Your task to perform on an android device: open app "Walmart Shopping & Grocery" (install if not already installed) Image 0: 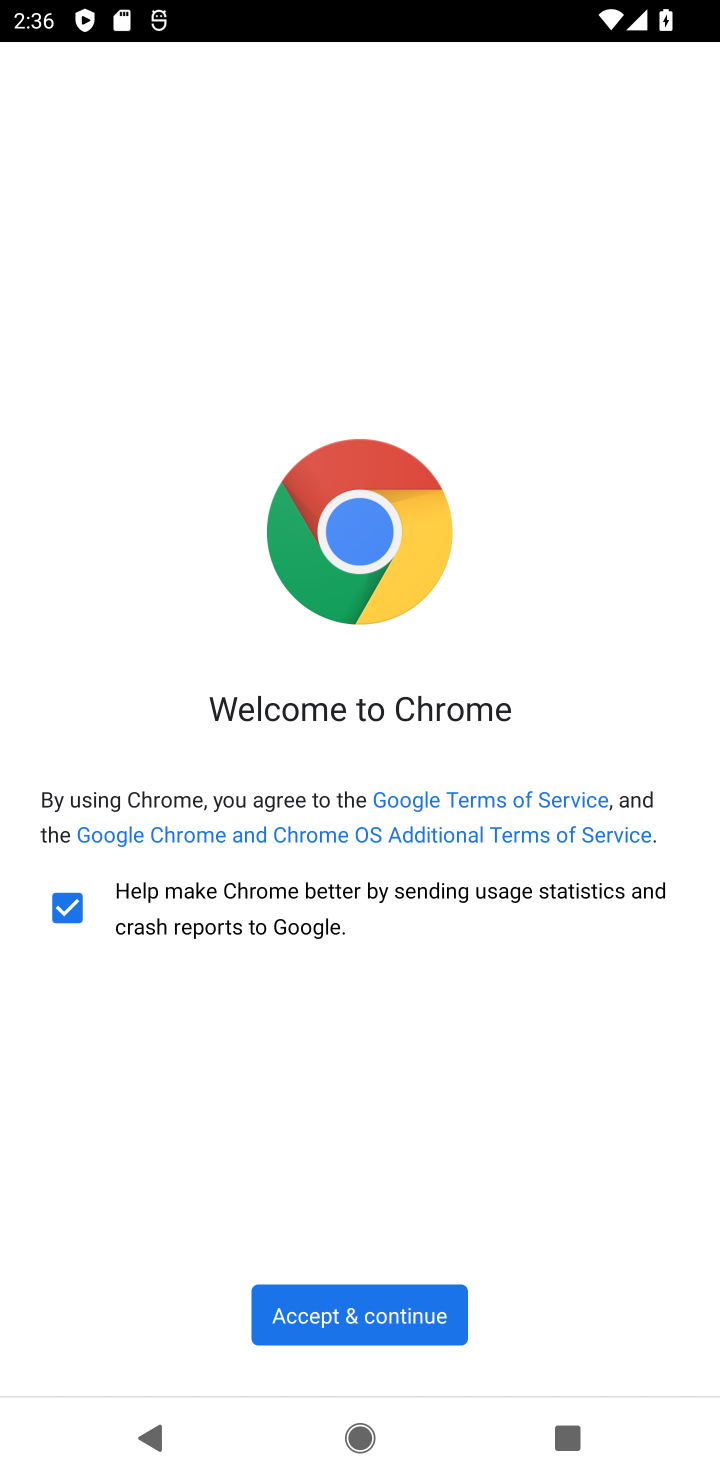
Step 0: press home button
Your task to perform on an android device: open app "Walmart Shopping & Grocery" (install if not already installed) Image 1: 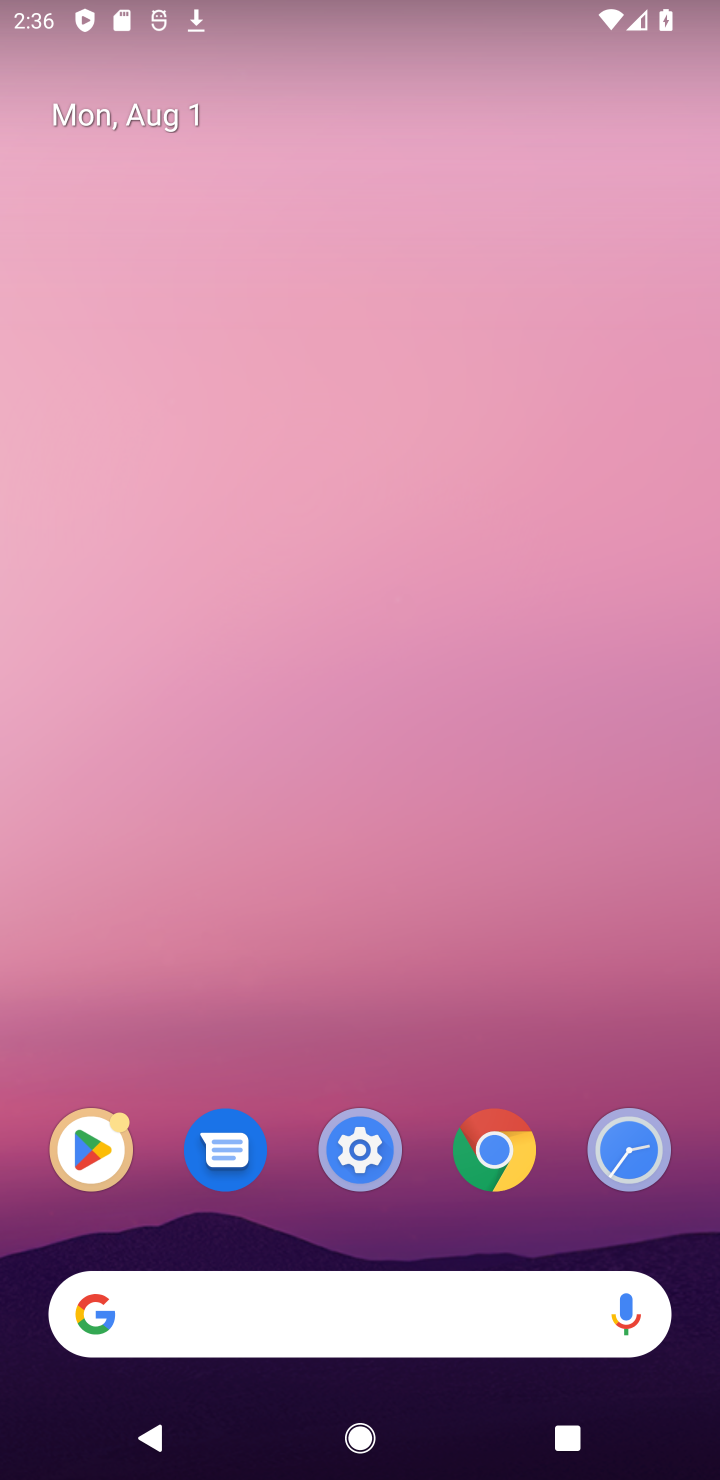
Step 1: drag from (414, 1236) to (436, 32)
Your task to perform on an android device: open app "Walmart Shopping & Grocery" (install if not already installed) Image 2: 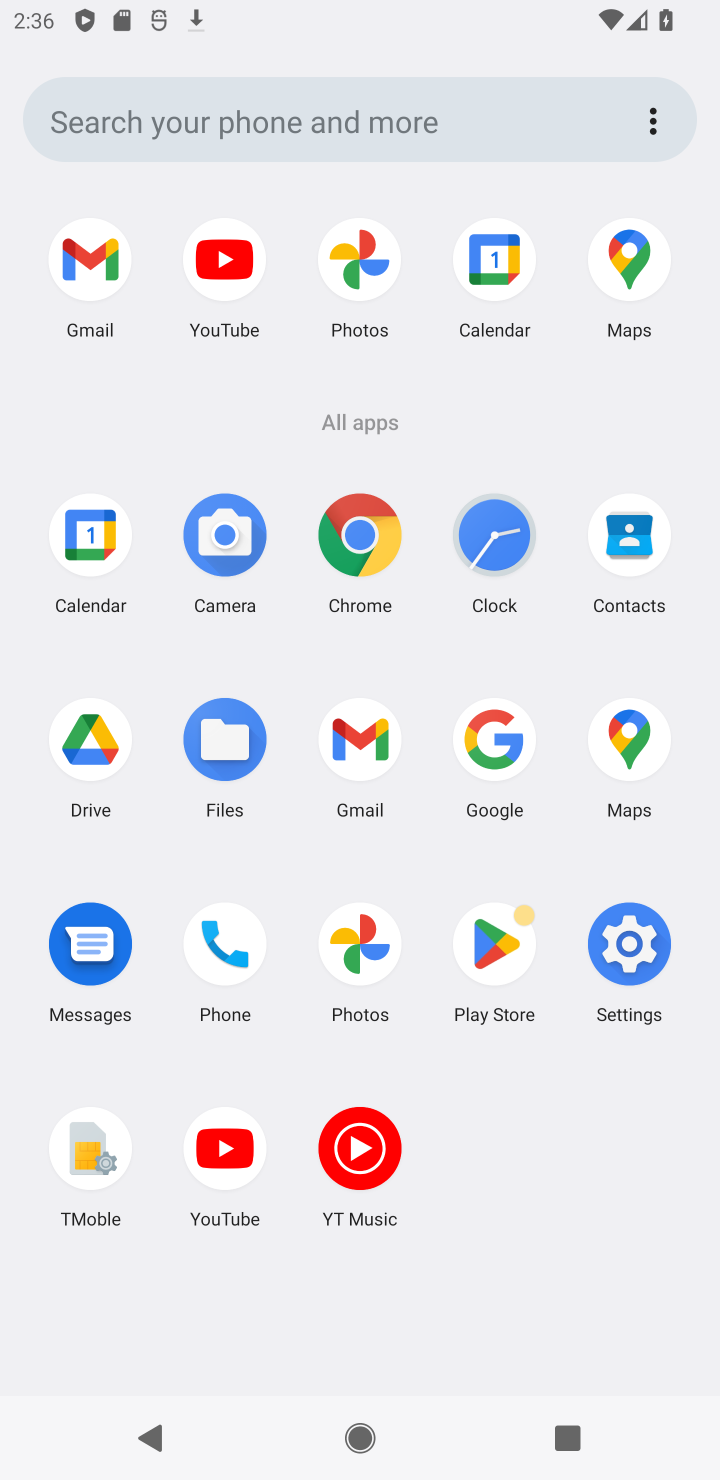
Step 2: click (504, 941)
Your task to perform on an android device: open app "Walmart Shopping & Grocery" (install if not already installed) Image 3: 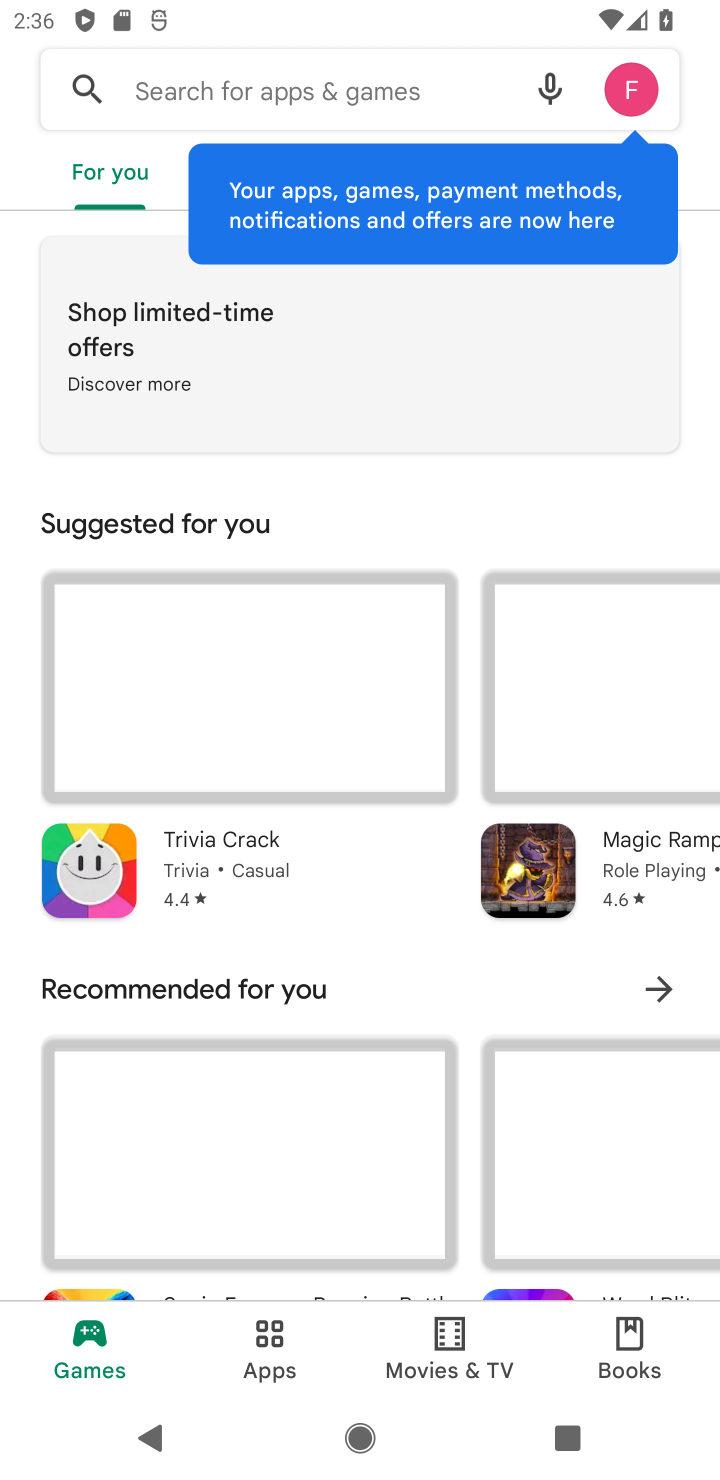
Step 3: click (277, 101)
Your task to perform on an android device: open app "Walmart Shopping & Grocery" (install if not already installed) Image 4: 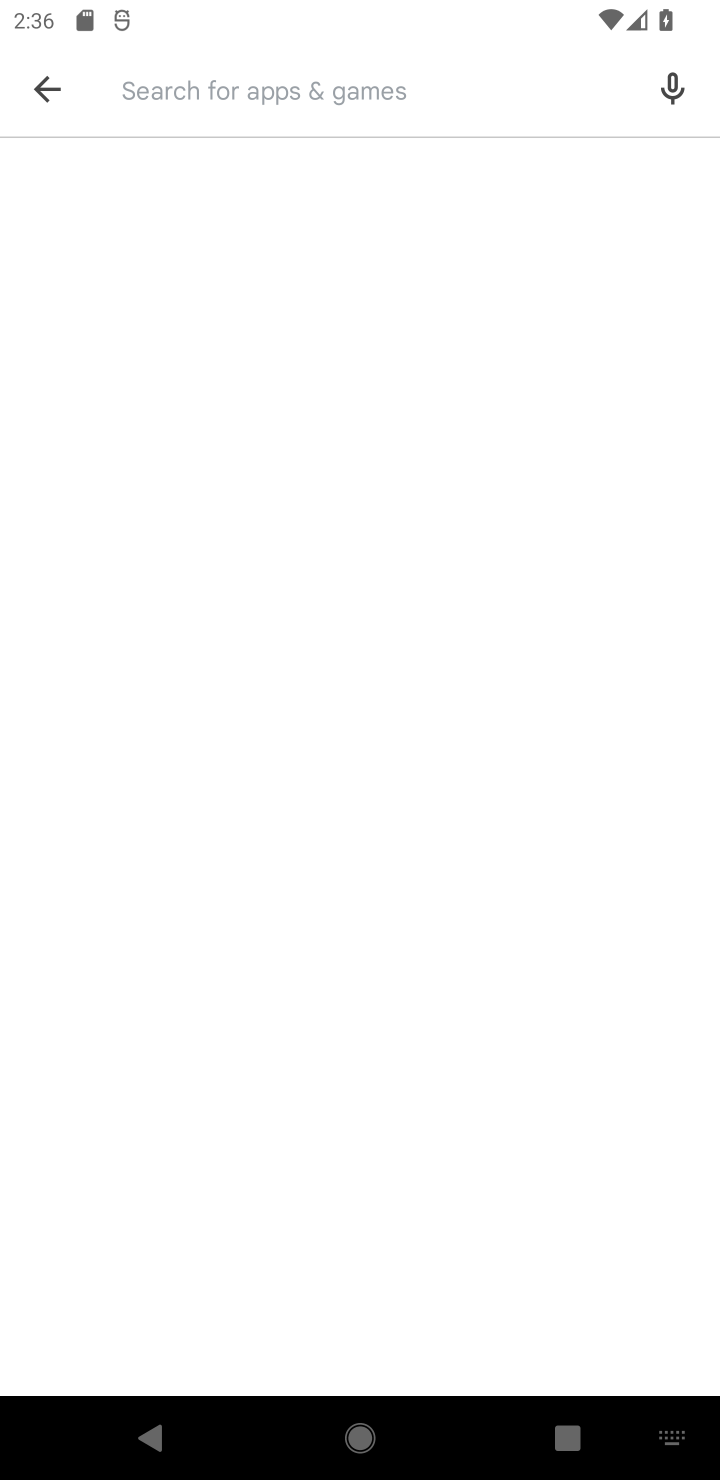
Step 4: type "walmart shopping"
Your task to perform on an android device: open app "Walmart Shopping & Grocery" (install if not already installed) Image 5: 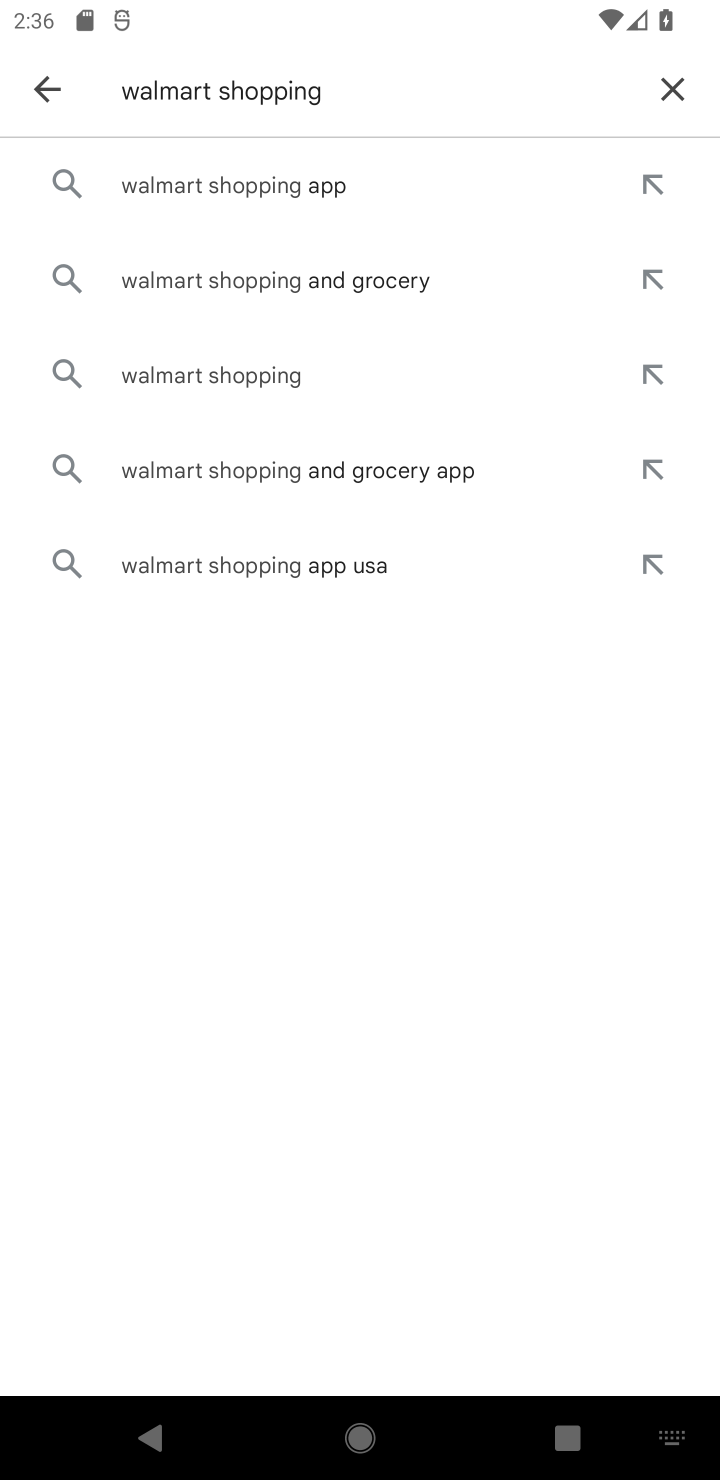
Step 5: click (258, 283)
Your task to perform on an android device: open app "Walmart Shopping & Grocery" (install if not already installed) Image 6: 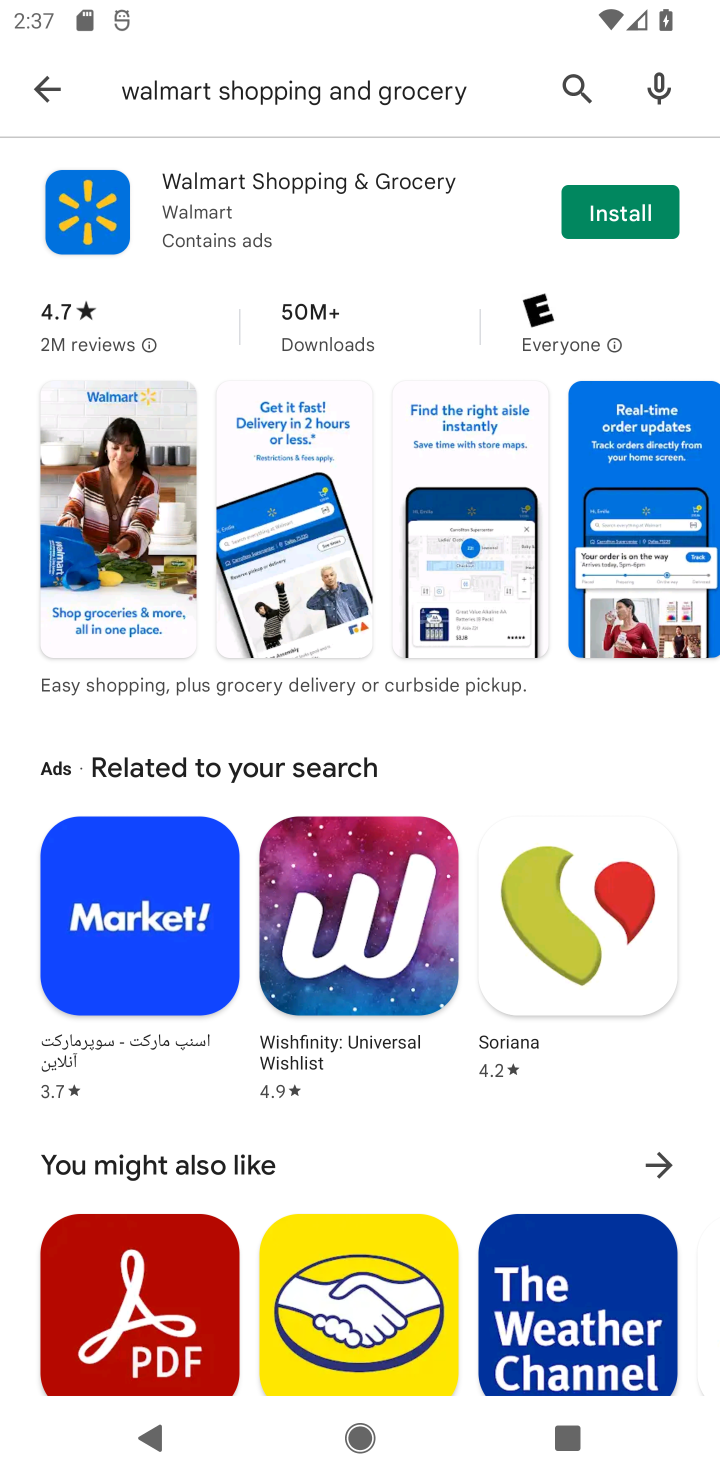
Step 6: click (625, 234)
Your task to perform on an android device: open app "Walmart Shopping & Grocery" (install if not already installed) Image 7: 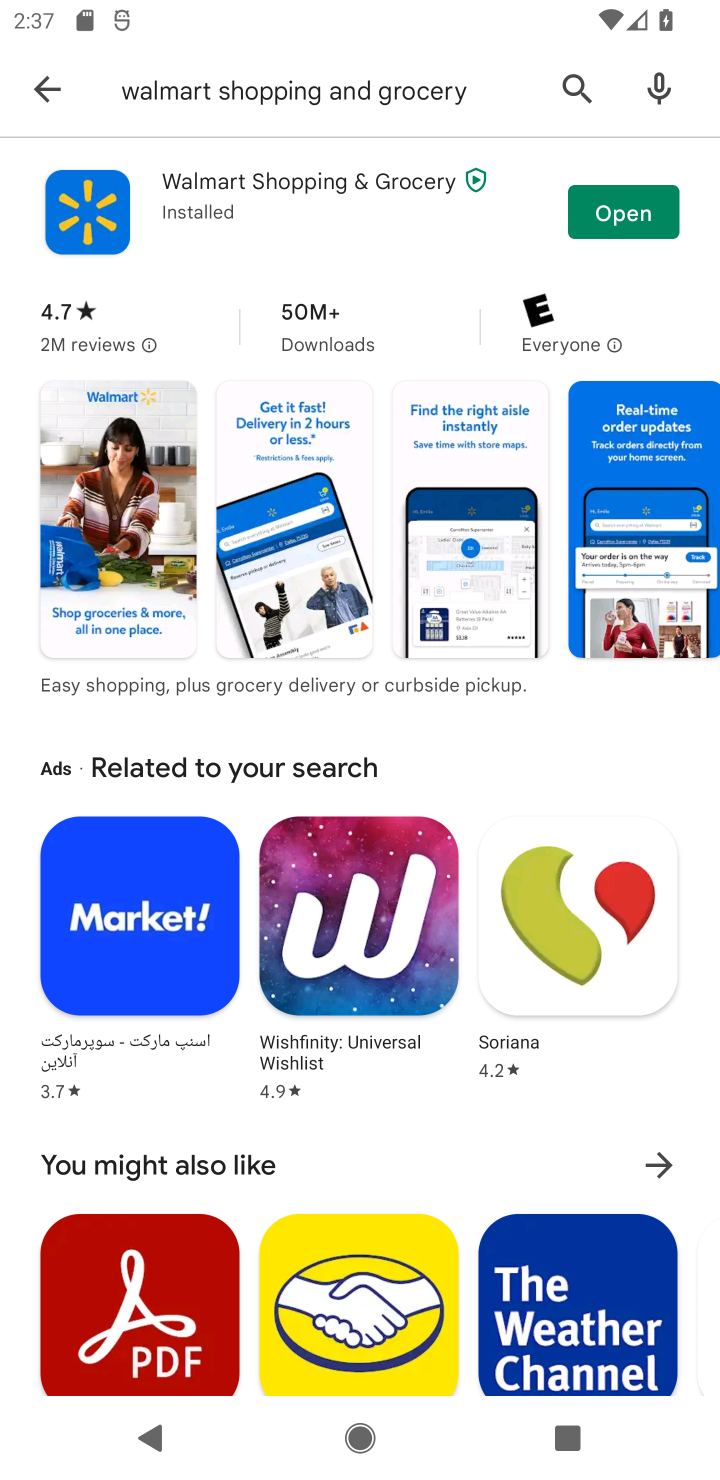
Step 7: click (622, 184)
Your task to perform on an android device: open app "Walmart Shopping & Grocery" (install if not already installed) Image 8: 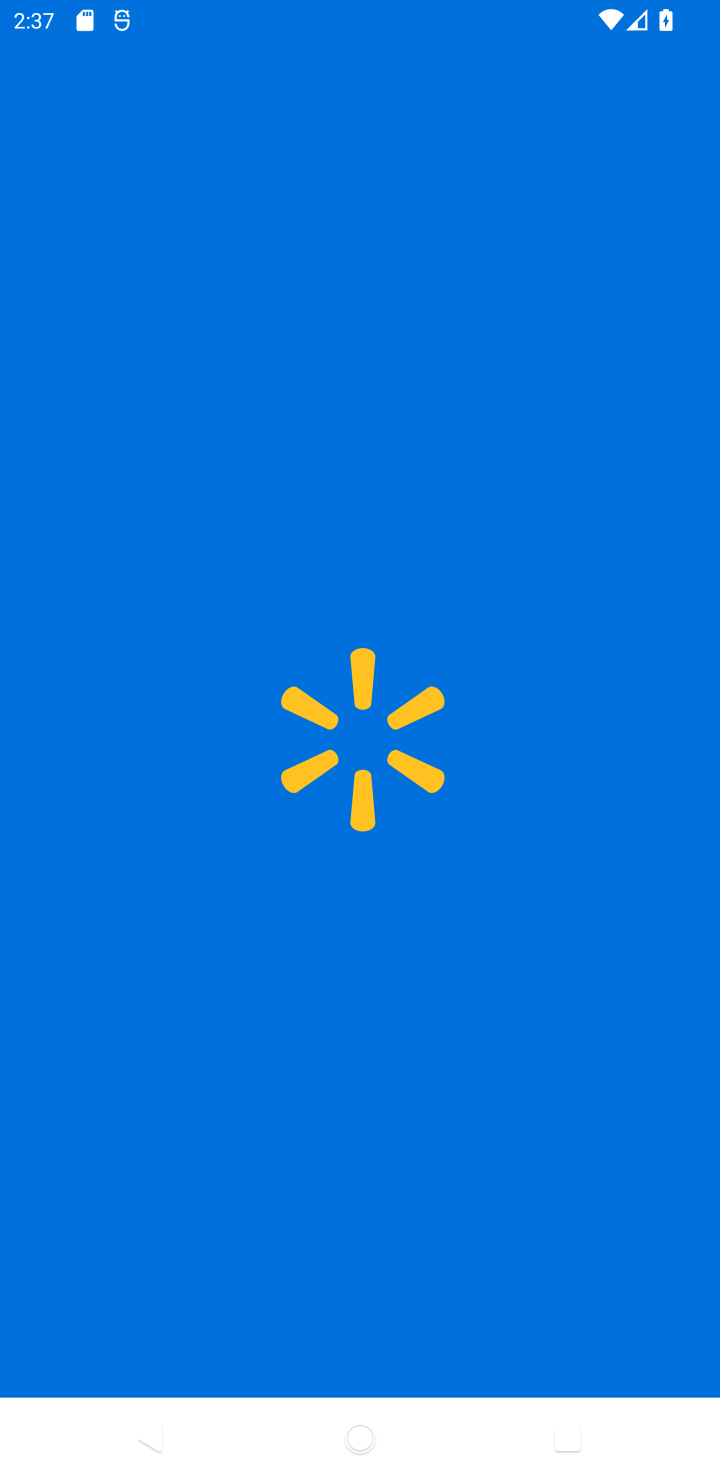
Step 8: task complete